Your task to perform on an android device: open app "Messenger Lite" Image 0: 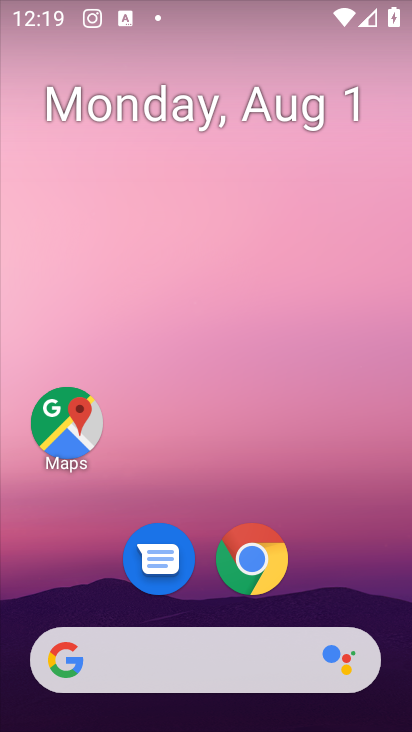
Step 0: drag from (53, 559) to (199, 12)
Your task to perform on an android device: open app "Messenger Lite" Image 1: 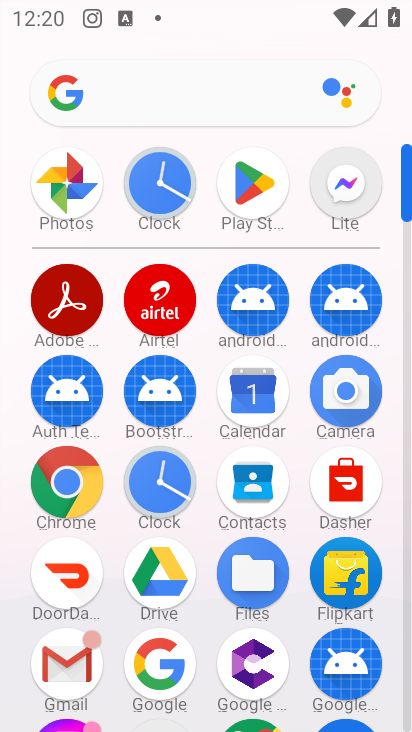
Step 1: click (235, 177)
Your task to perform on an android device: open app "Messenger Lite" Image 2: 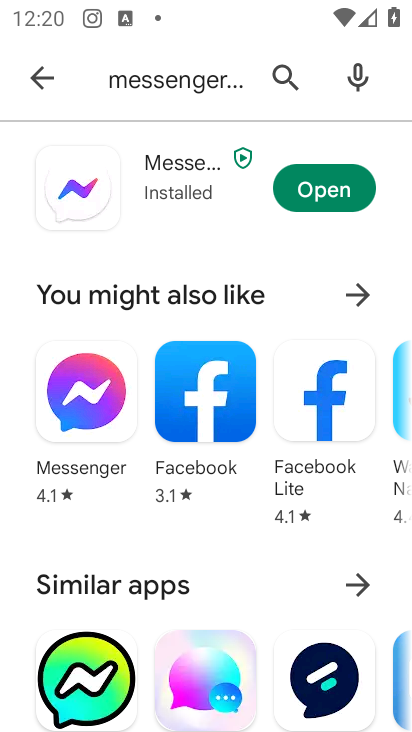
Step 2: click (323, 185)
Your task to perform on an android device: open app "Messenger Lite" Image 3: 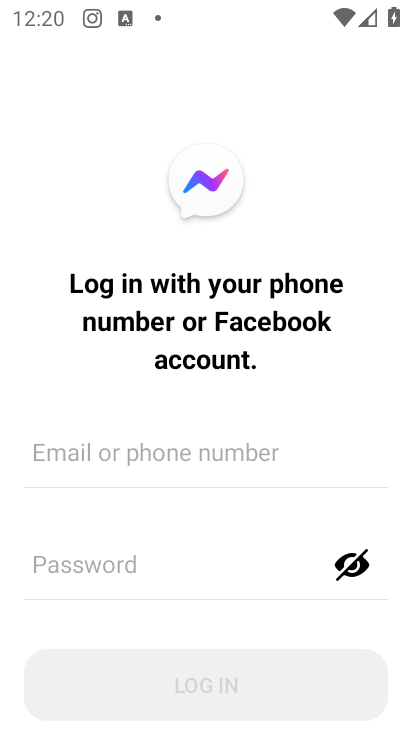
Step 3: task complete